Your task to perform on an android device: What is the news today? Image 0: 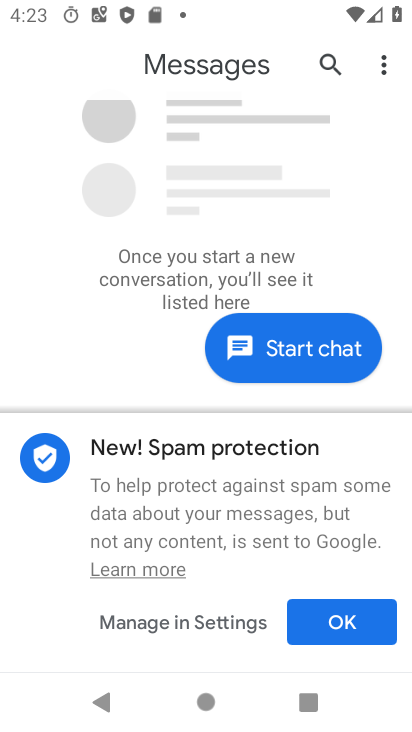
Step 0: press home button
Your task to perform on an android device: What is the news today? Image 1: 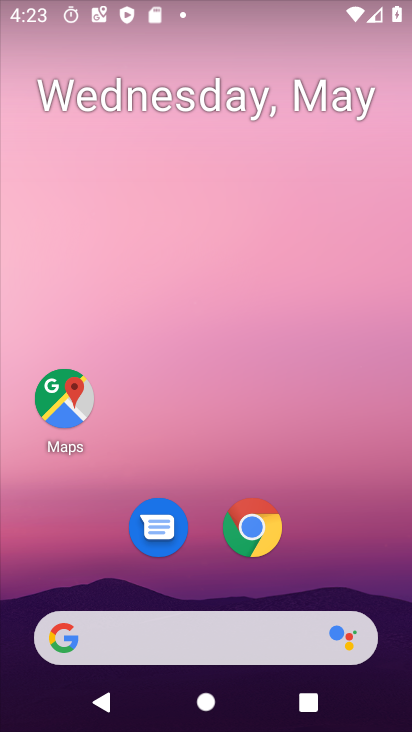
Step 1: click (269, 539)
Your task to perform on an android device: What is the news today? Image 2: 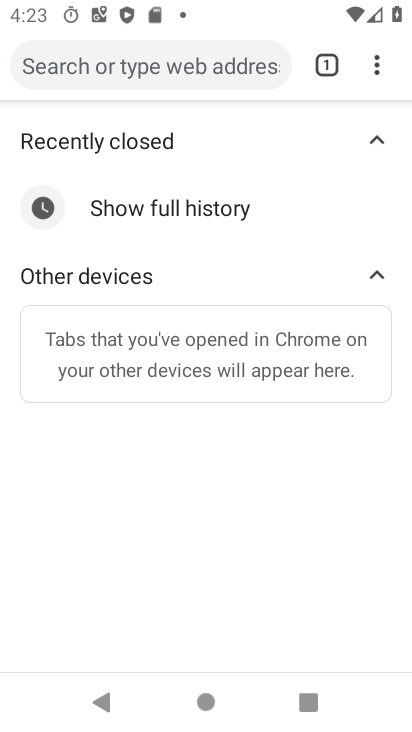
Step 2: click (122, 57)
Your task to perform on an android device: What is the news today? Image 3: 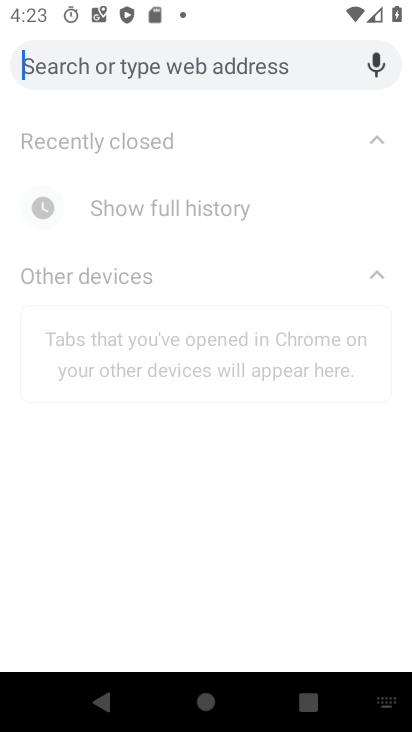
Step 3: type "What is the news today?"
Your task to perform on an android device: What is the news today? Image 4: 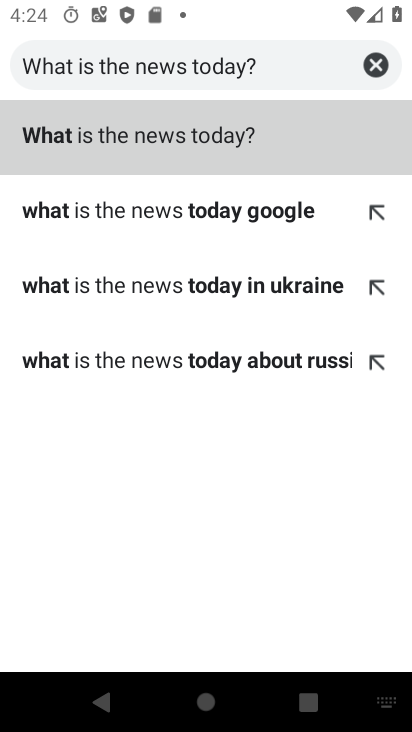
Step 4: click (115, 130)
Your task to perform on an android device: What is the news today? Image 5: 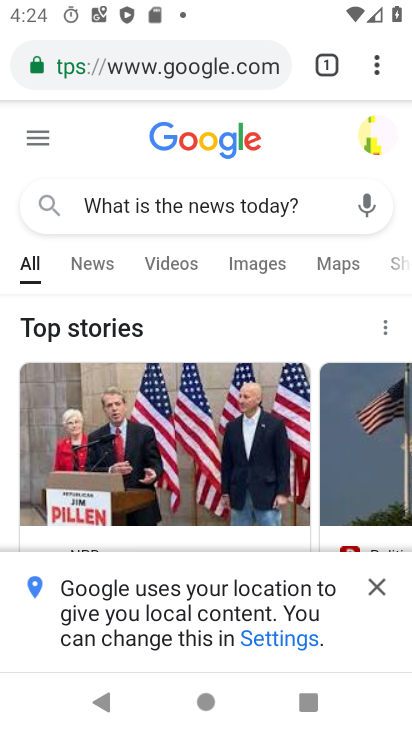
Step 5: drag from (231, 325) to (237, 131)
Your task to perform on an android device: What is the news today? Image 6: 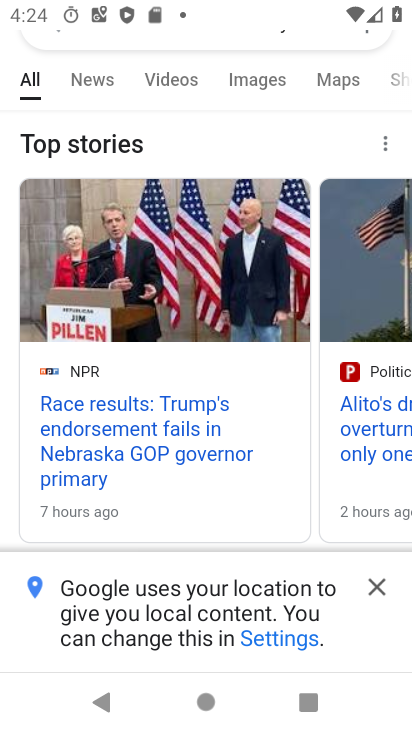
Step 6: click (82, 71)
Your task to perform on an android device: What is the news today? Image 7: 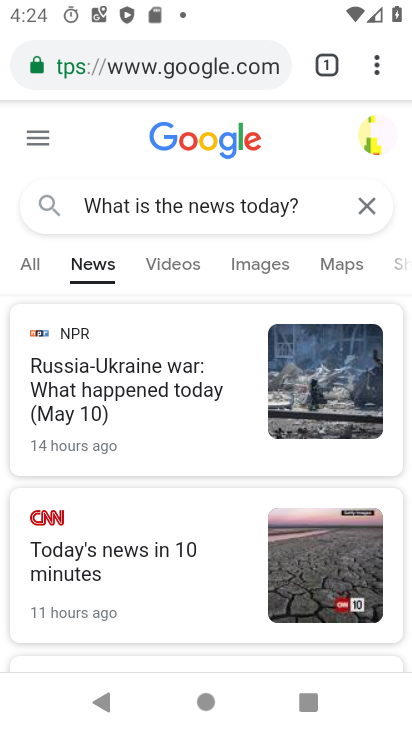
Step 7: task complete